Your task to perform on an android device: Open display settings Image 0: 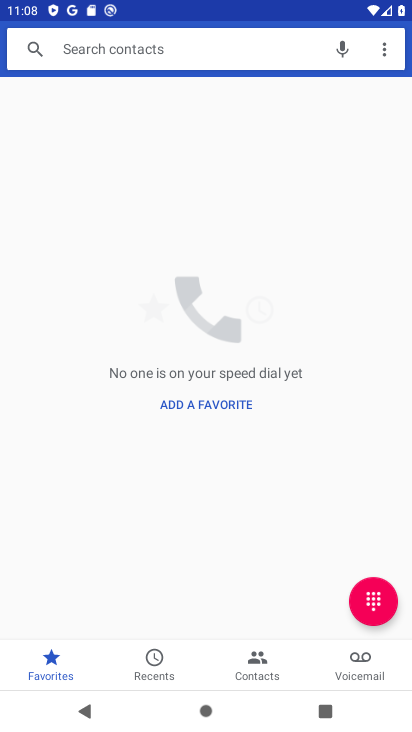
Step 0: press home button
Your task to perform on an android device: Open display settings Image 1: 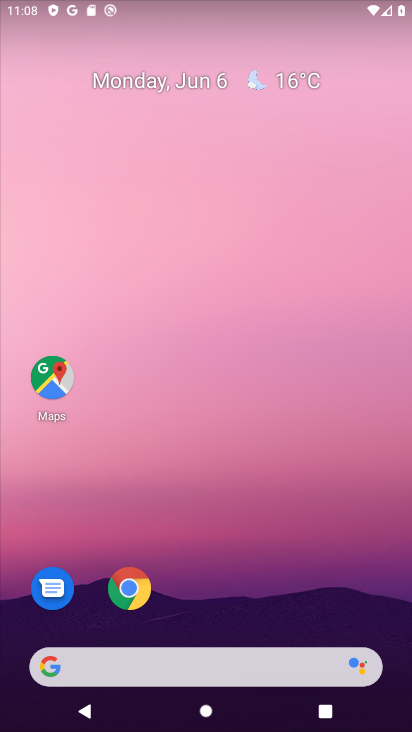
Step 1: drag from (258, 548) to (261, 225)
Your task to perform on an android device: Open display settings Image 2: 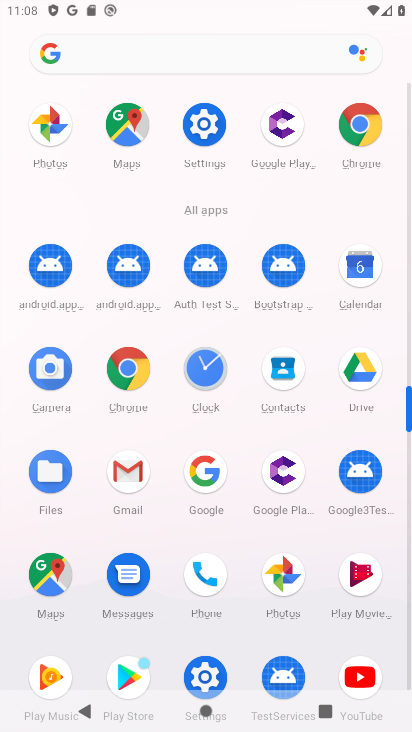
Step 2: click (199, 116)
Your task to perform on an android device: Open display settings Image 3: 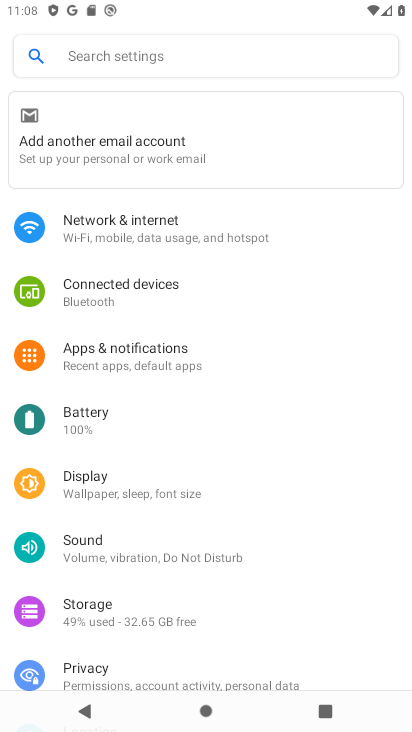
Step 3: click (131, 492)
Your task to perform on an android device: Open display settings Image 4: 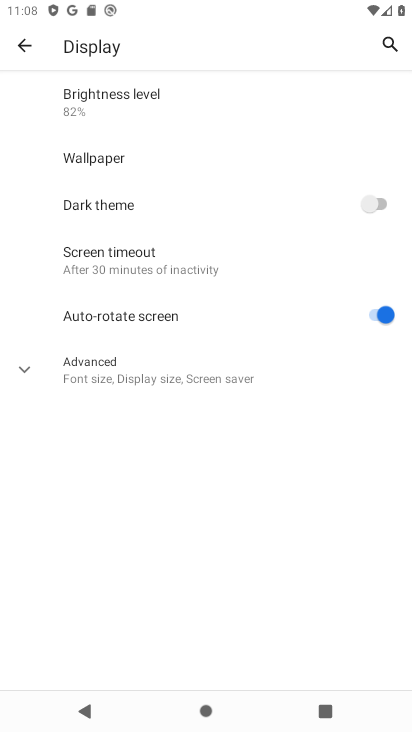
Step 4: task complete